Your task to perform on an android device: find snoozed emails in the gmail app Image 0: 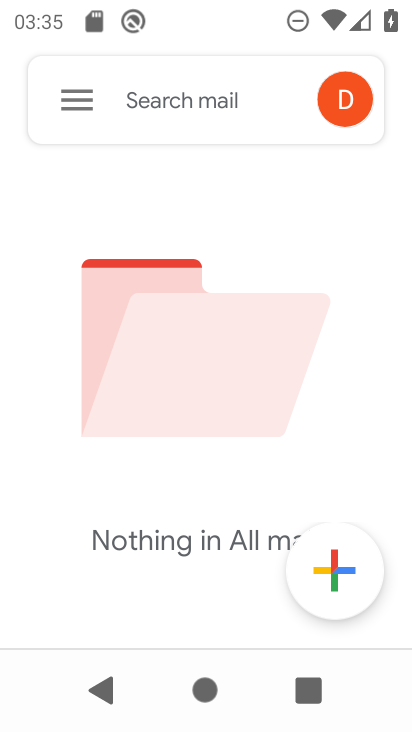
Step 0: click (77, 100)
Your task to perform on an android device: find snoozed emails in the gmail app Image 1: 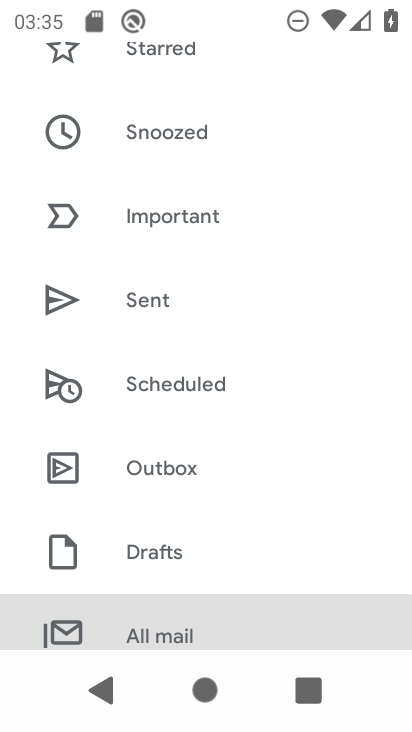
Step 1: click (163, 139)
Your task to perform on an android device: find snoozed emails in the gmail app Image 2: 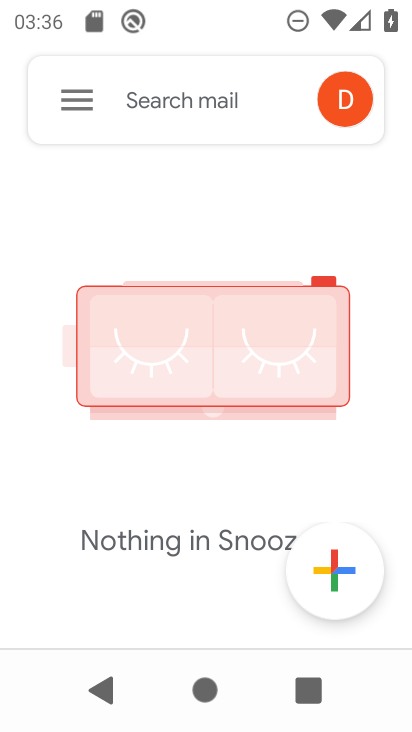
Step 2: task complete